Your task to perform on an android device: open the mobile data screen to see how much data has been used Image 0: 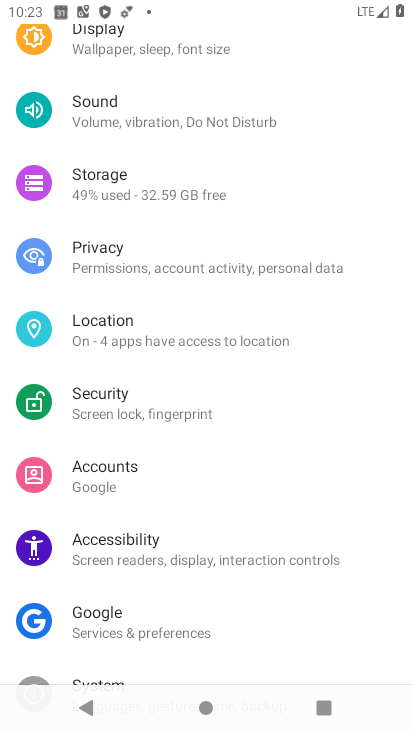
Step 0: press home button
Your task to perform on an android device: open the mobile data screen to see how much data has been used Image 1: 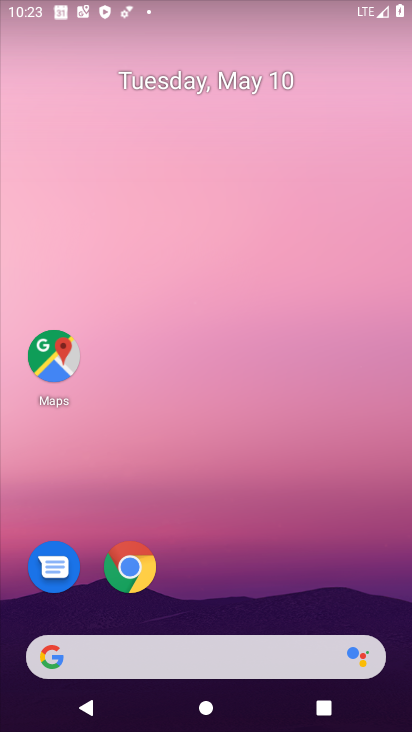
Step 1: drag from (30, 628) to (276, 125)
Your task to perform on an android device: open the mobile data screen to see how much data has been used Image 2: 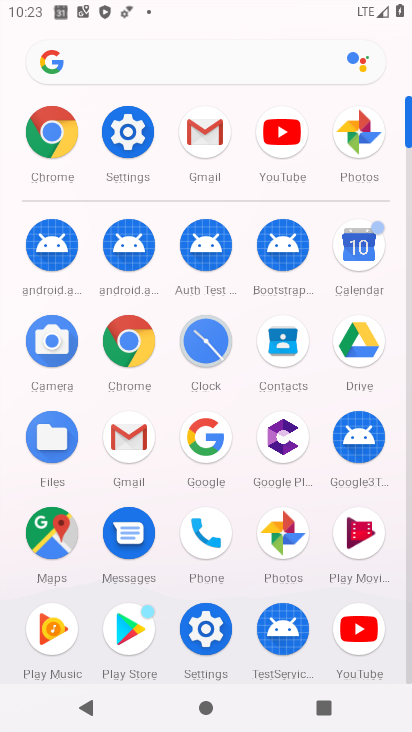
Step 2: click (126, 141)
Your task to perform on an android device: open the mobile data screen to see how much data has been used Image 3: 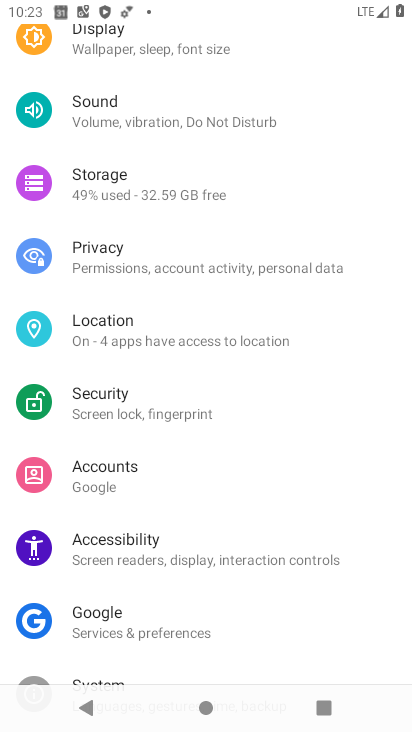
Step 3: drag from (187, 82) to (190, 568)
Your task to perform on an android device: open the mobile data screen to see how much data has been used Image 4: 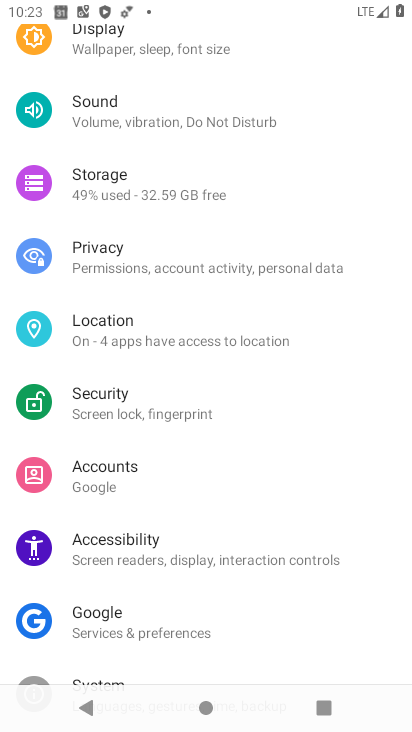
Step 4: drag from (221, 64) to (227, 542)
Your task to perform on an android device: open the mobile data screen to see how much data has been used Image 5: 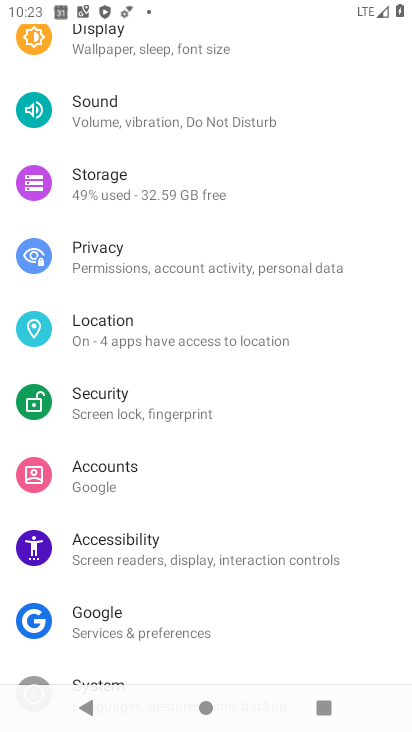
Step 5: drag from (210, 93) to (211, 538)
Your task to perform on an android device: open the mobile data screen to see how much data has been used Image 6: 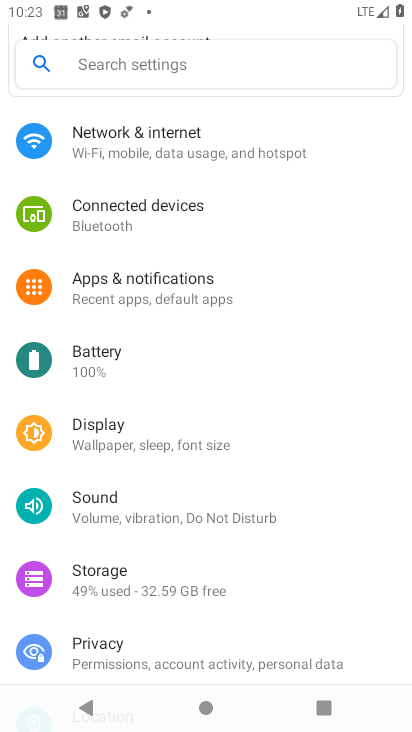
Step 6: click (193, 134)
Your task to perform on an android device: open the mobile data screen to see how much data has been used Image 7: 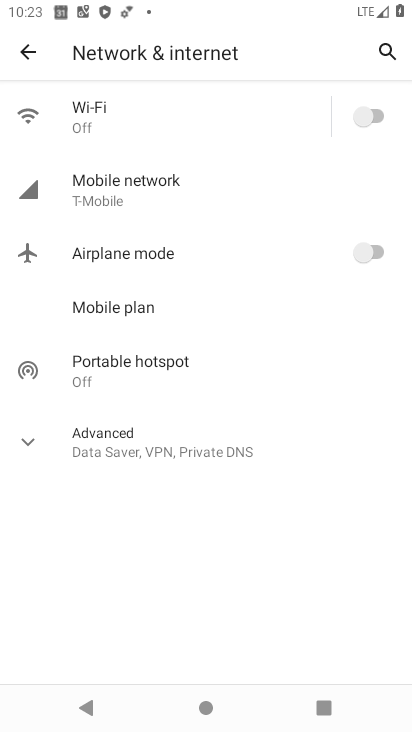
Step 7: press home button
Your task to perform on an android device: open the mobile data screen to see how much data has been used Image 8: 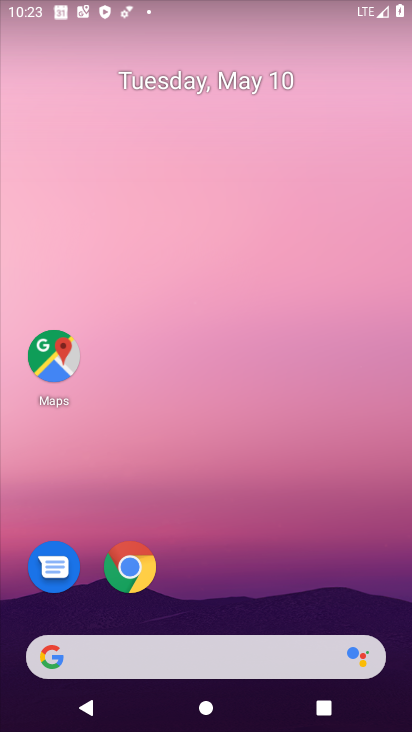
Step 8: drag from (53, 642) to (262, 182)
Your task to perform on an android device: open the mobile data screen to see how much data has been used Image 9: 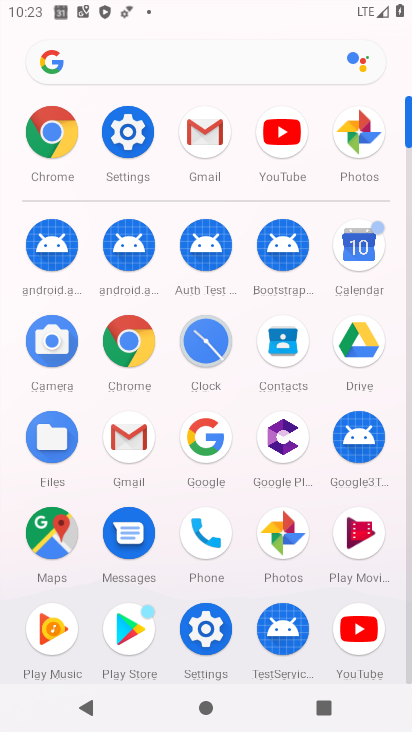
Step 9: click (142, 131)
Your task to perform on an android device: open the mobile data screen to see how much data has been used Image 10: 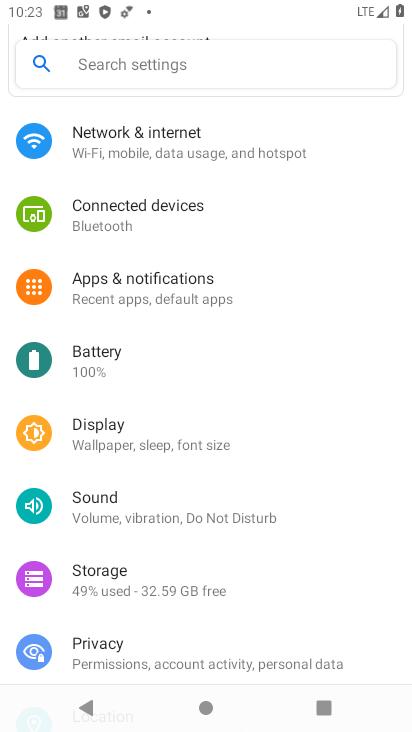
Step 10: click (157, 151)
Your task to perform on an android device: open the mobile data screen to see how much data has been used Image 11: 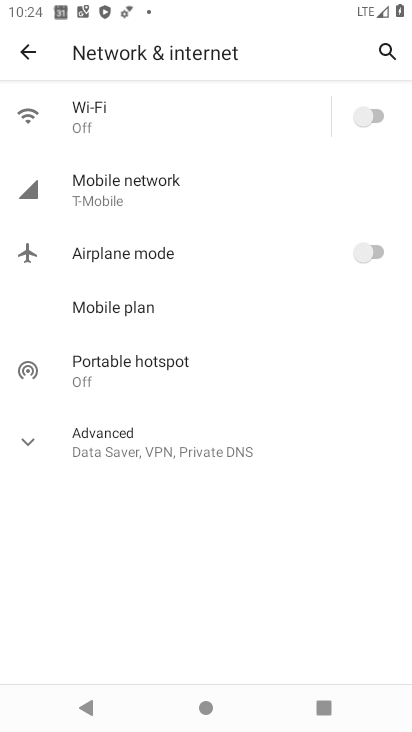
Step 11: click (154, 180)
Your task to perform on an android device: open the mobile data screen to see how much data has been used Image 12: 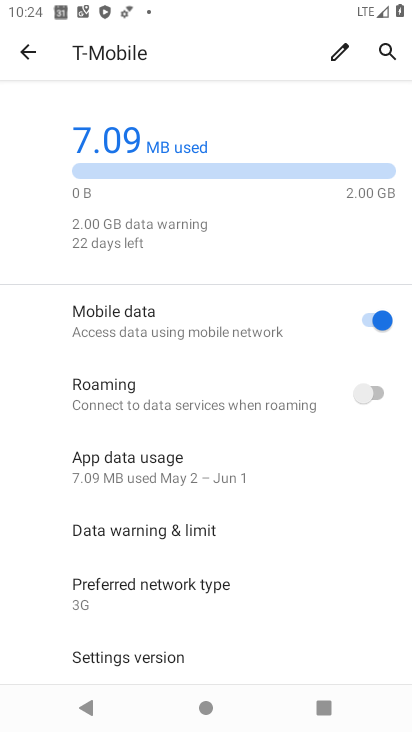
Step 12: task complete